Your task to perform on an android device: change the clock display to analog Image 0: 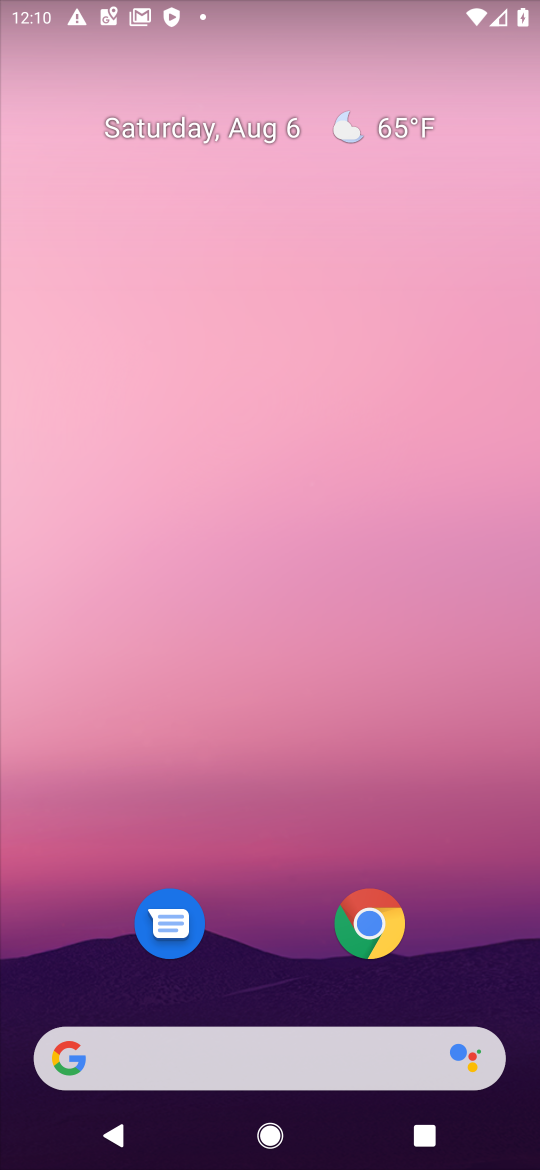
Step 0: drag from (247, 1054) to (222, 35)
Your task to perform on an android device: change the clock display to analog Image 1: 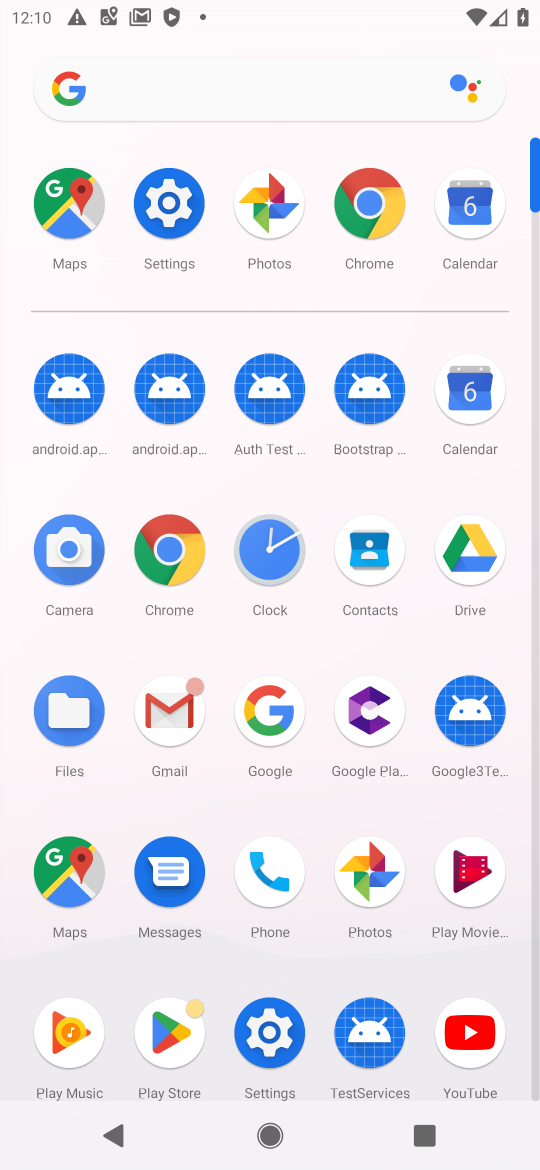
Step 1: click (270, 528)
Your task to perform on an android device: change the clock display to analog Image 2: 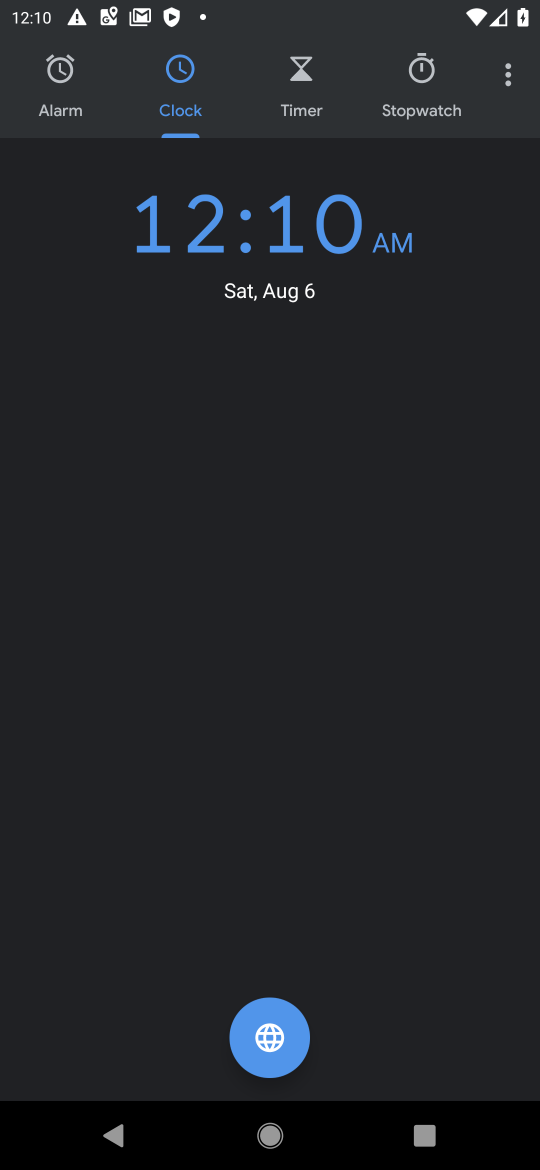
Step 2: click (523, 68)
Your task to perform on an android device: change the clock display to analog Image 3: 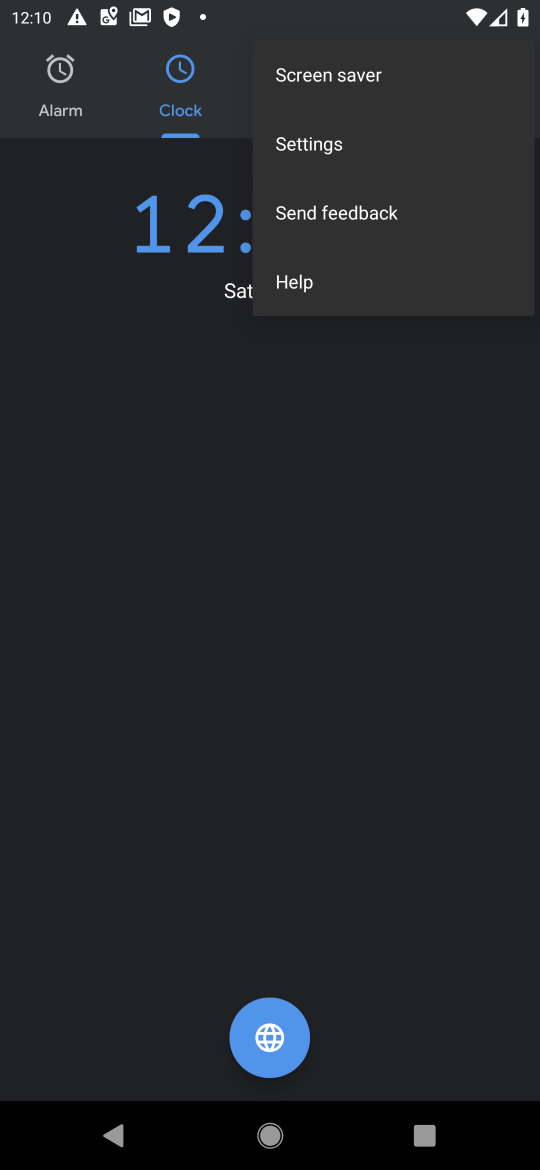
Step 3: click (288, 142)
Your task to perform on an android device: change the clock display to analog Image 4: 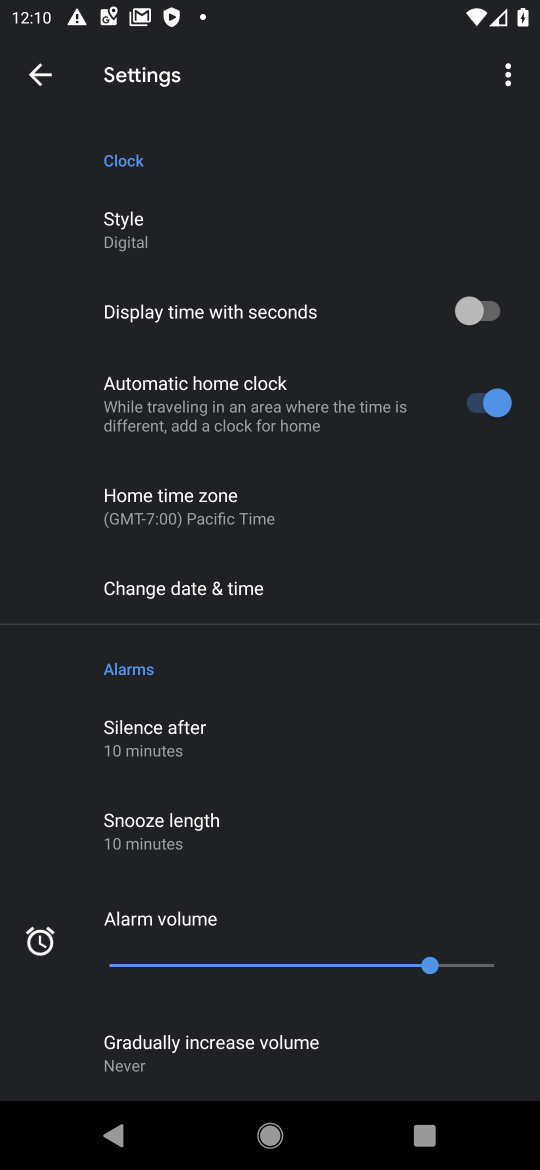
Step 4: click (198, 243)
Your task to perform on an android device: change the clock display to analog Image 5: 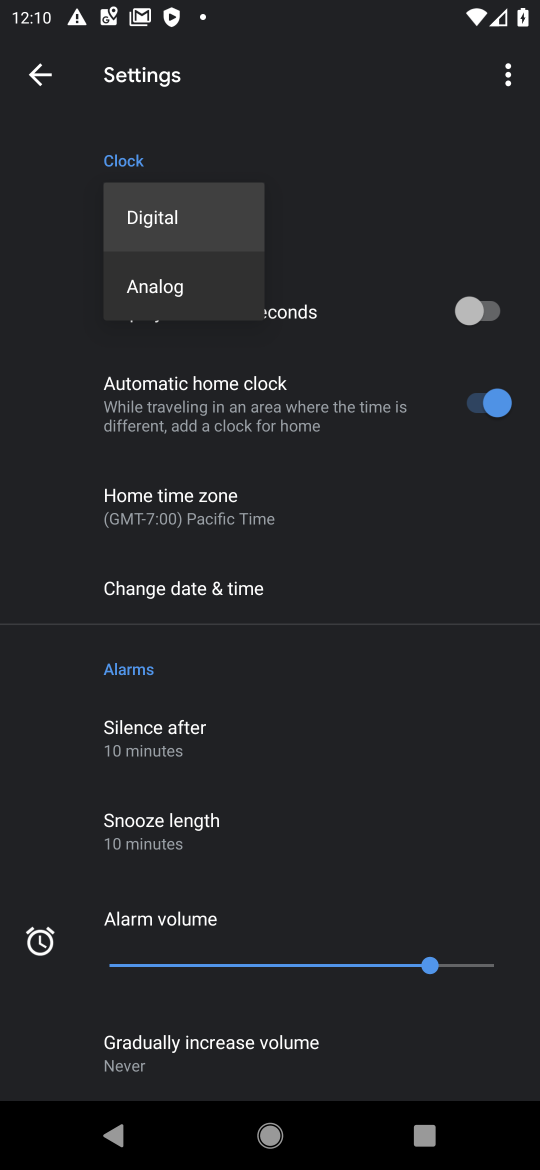
Step 5: click (186, 266)
Your task to perform on an android device: change the clock display to analog Image 6: 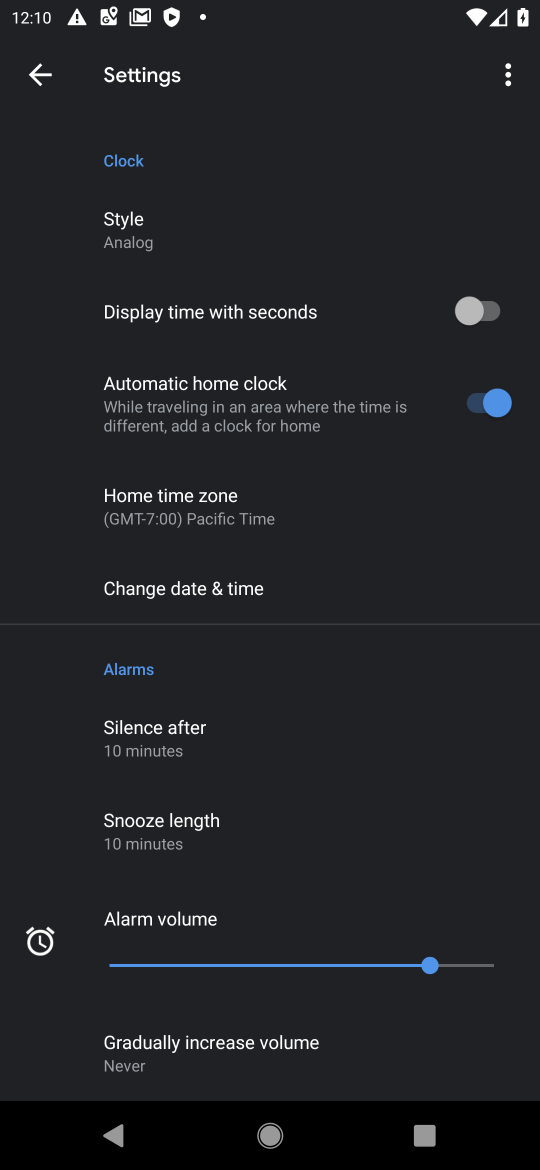
Step 6: task complete